Your task to perform on an android device: add a label to a message in the gmail app Image 0: 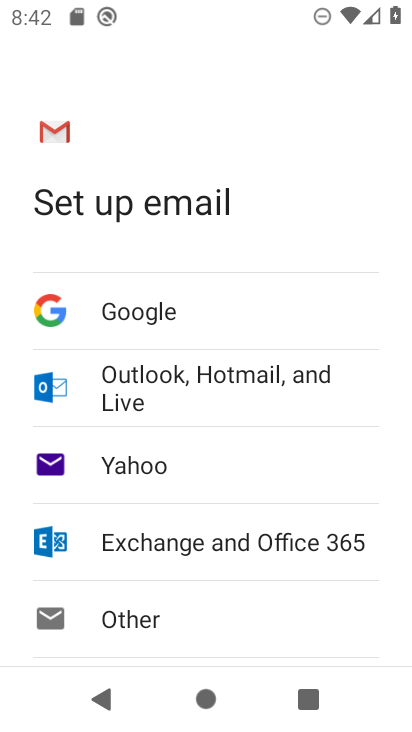
Step 0: press home button
Your task to perform on an android device: add a label to a message in the gmail app Image 1: 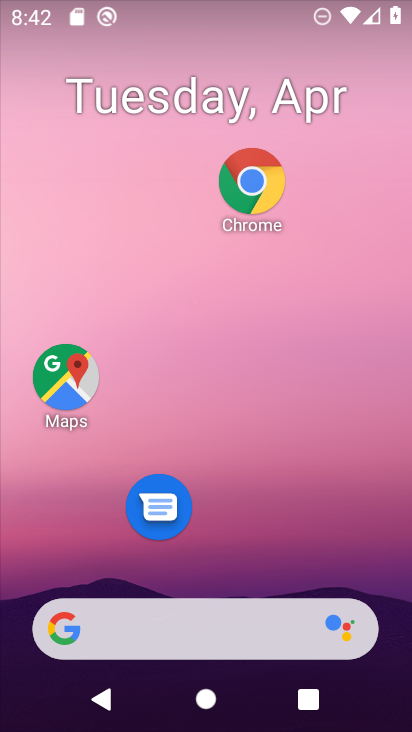
Step 1: drag from (233, 568) to (260, 101)
Your task to perform on an android device: add a label to a message in the gmail app Image 2: 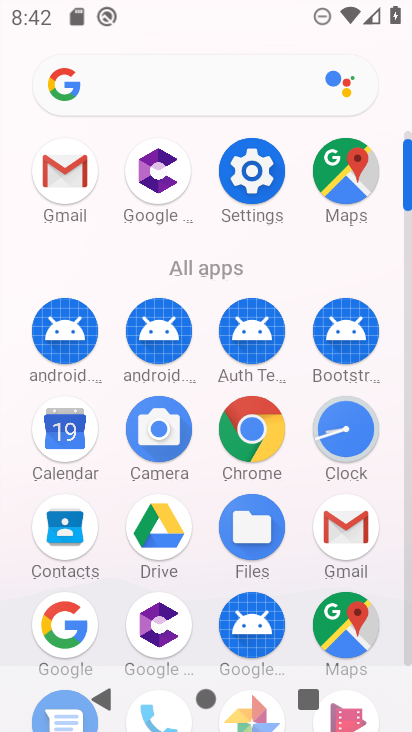
Step 2: click (59, 173)
Your task to perform on an android device: add a label to a message in the gmail app Image 3: 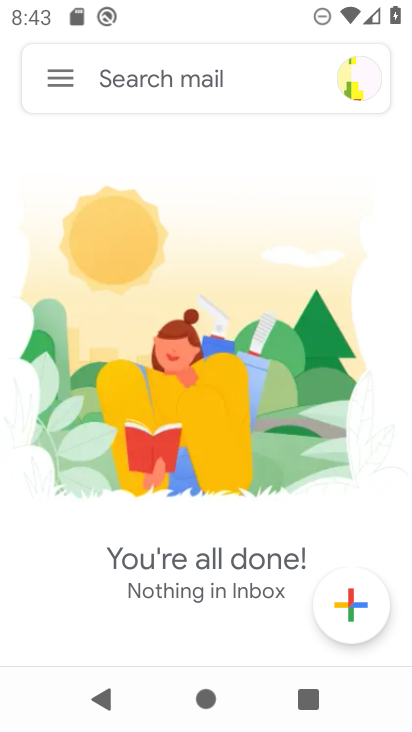
Step 3: click (73, 73)
Your task to perform on an android device: add a label to a message in the gmail app Image 4: 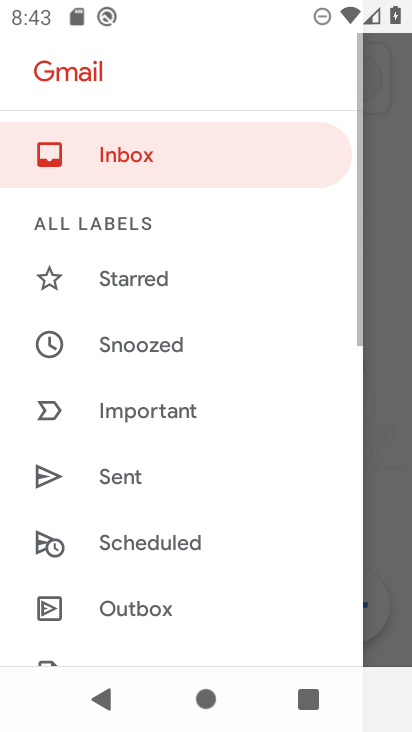
Step 4: drag from (171, 589) to (198, 259)
Your task to perform on an android device: add a label to a message in the gmail app Image 5: 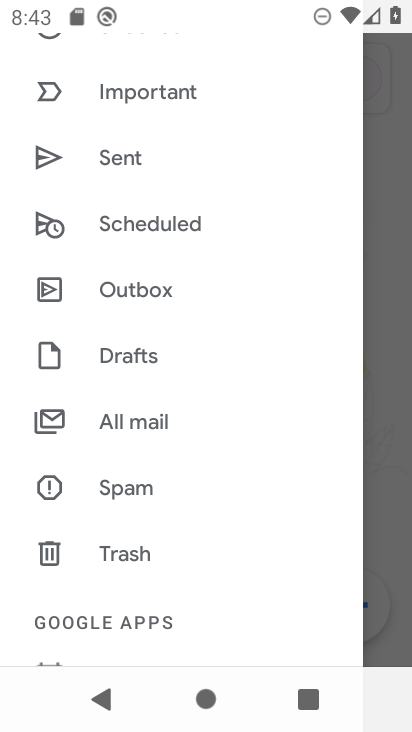
Step 5: click (159, 427)
Your task to perform on an android device: add a label to a message in the gmail app Image 6: 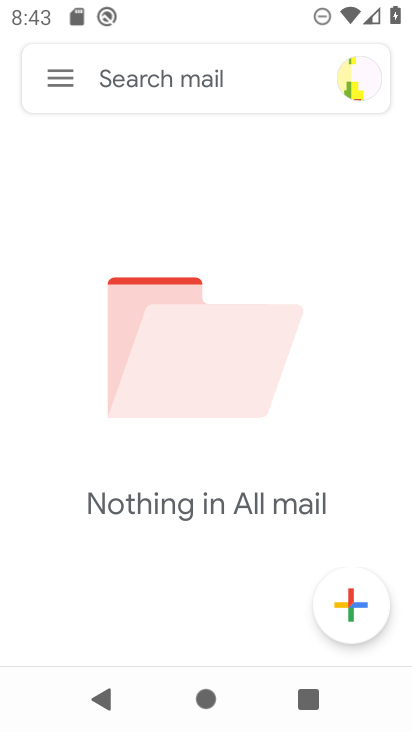
Step 6: task complete